Your task to perform on an android device: change your default location settings in chrome Image 0: 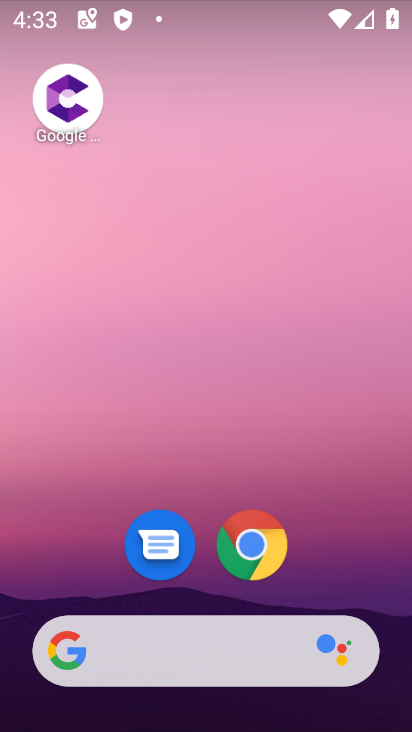
Step 0: drag from (331, 430) to (300, 0)
Your task to perform on an android device: change your default location settings in chrome Image 1: 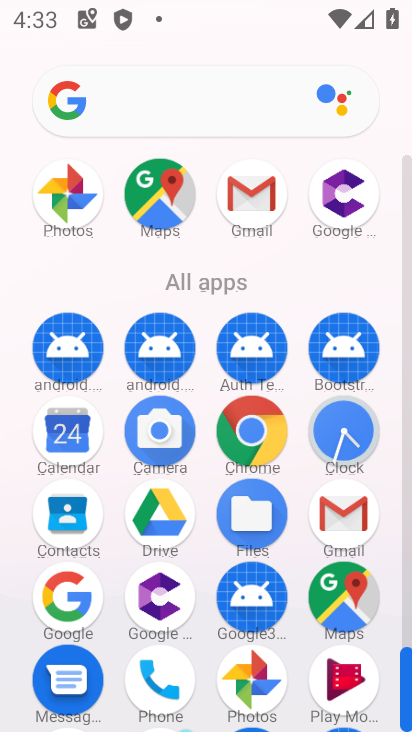
Step 1: drag from (14, 622) to (4, 227)
Your task to perform on an android device: change your default location settings in chrome Image 2: 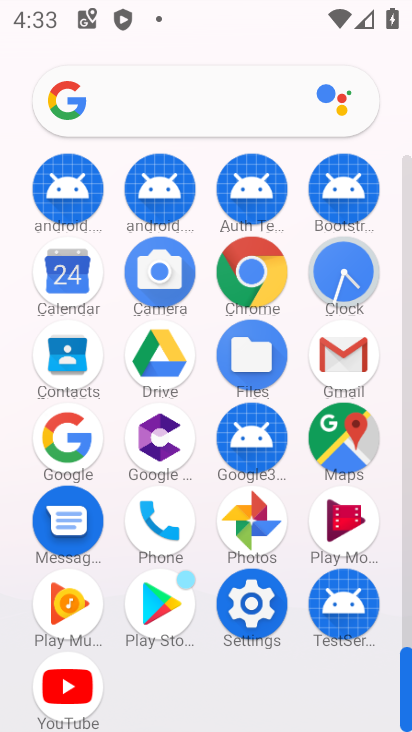
Step 2: click (255, 258)
Your task to perform on an android device: change your default location settings in chrome Image 3: 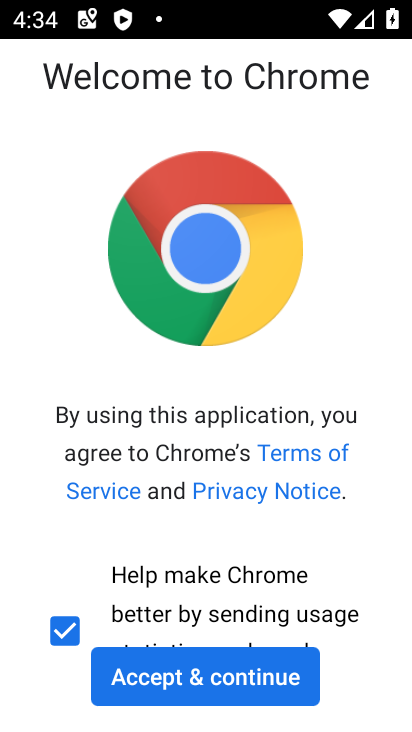
Step 3: click (259, 663)
Your task to perform on an android device: change your default location settings in chrome Image 4: 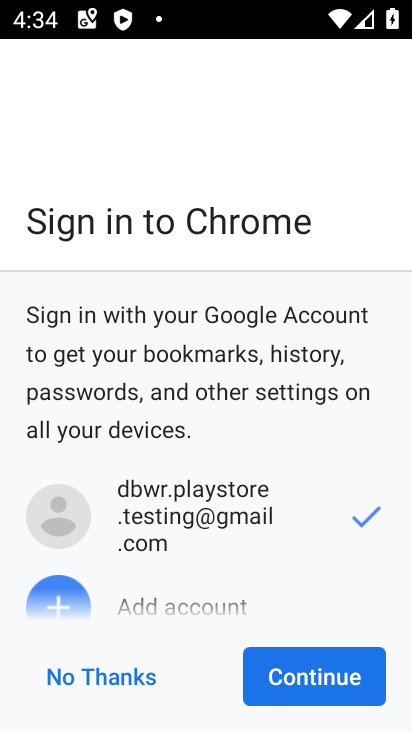
Step 4: click (315, 708)
Your task to perform on an android device: change your default location settings in chrome Image 5: 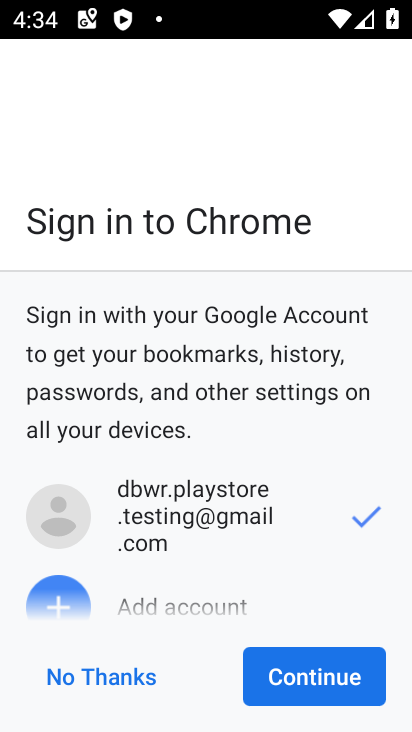
Step 5: click (310, 672)
Your task to perform on an android device: change your default location settings in chrome Image 6: 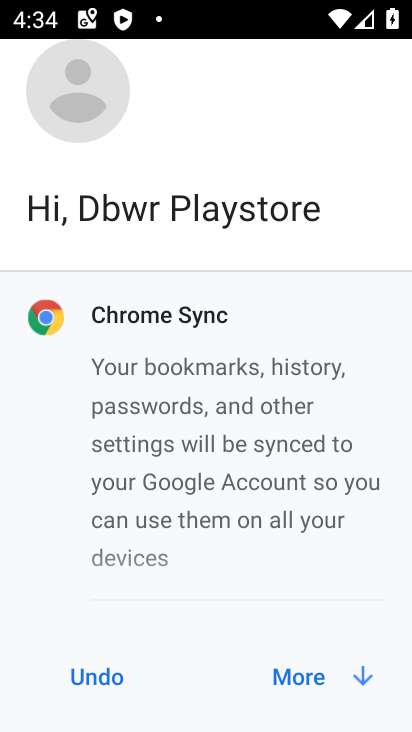
Step 6: click (310, 672)
Your task to perform on an android device: change your default location settings in chrome Image 7: 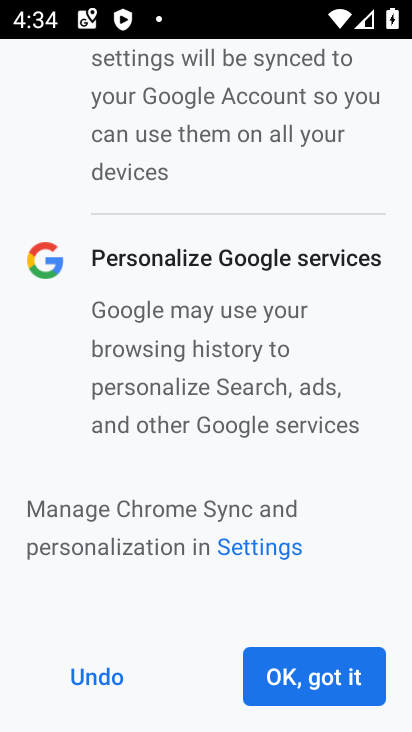
Step 7: click (310, 672)
Your task to perform on an android device: change your default location settings in chrome Image 8: 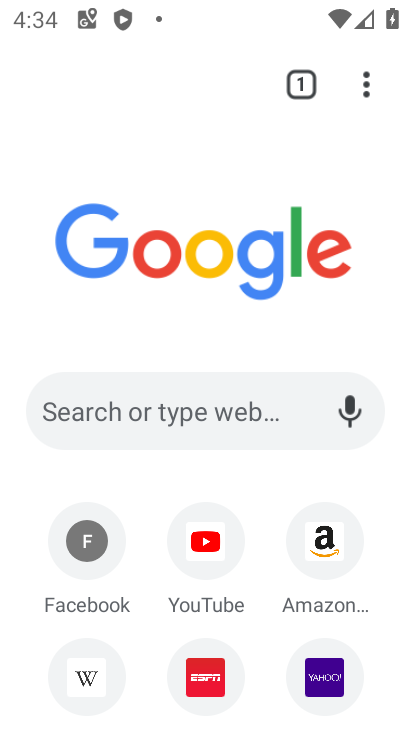
Step 8: drag from (369, 99) to (106, 582)
Your task to perform on an android device: change your default location settings in chrome Image 9: 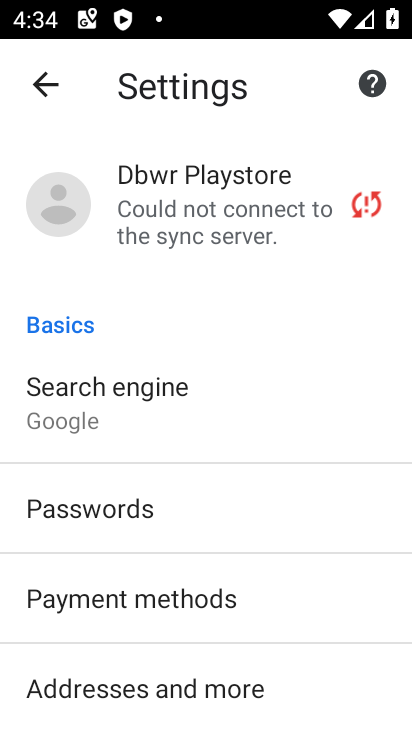
Step 9: drag from (200, 653) to (232, 251)
Your task to perform on an android device: change your default location settings in chrome Image 10: 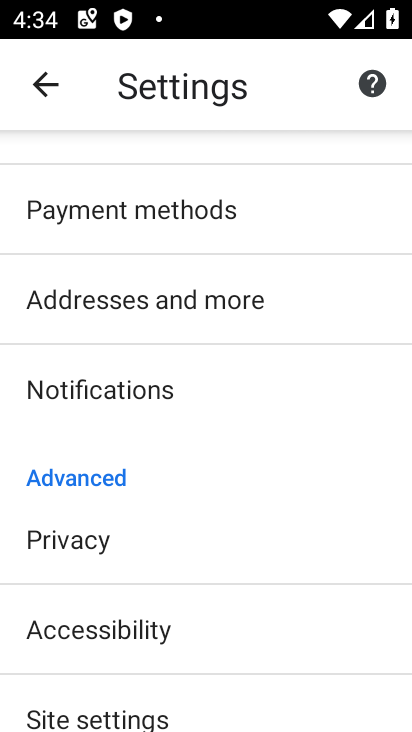
Step 10: drag from (194, 643) to (243, 193)
Your task to perform on an android device: change your default location settings in chrome Image 11: 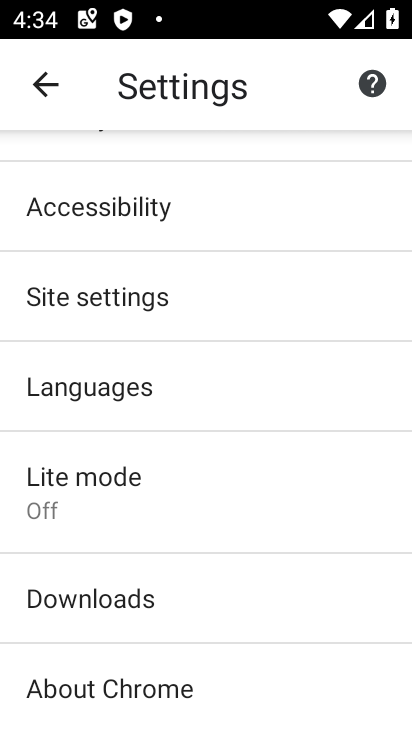
Step 11: drag from (204, 533) to (231, 134)
Your task to perform on an android device: change your default location settings in chrome Image 12: 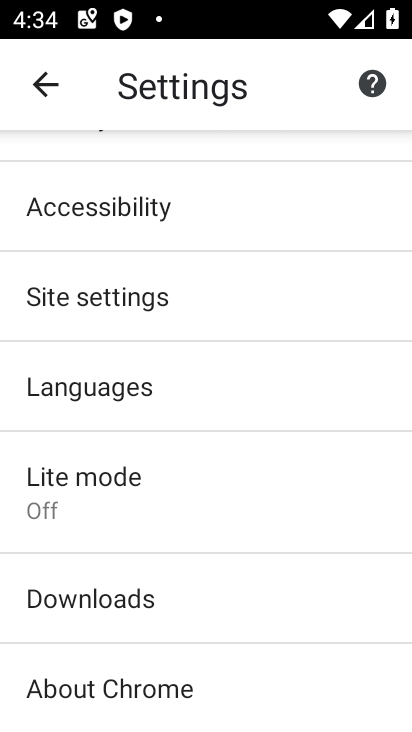
Step 12: click (197, 297)
Your task to perform on an android device: change your default location settings in chrome Image 13: 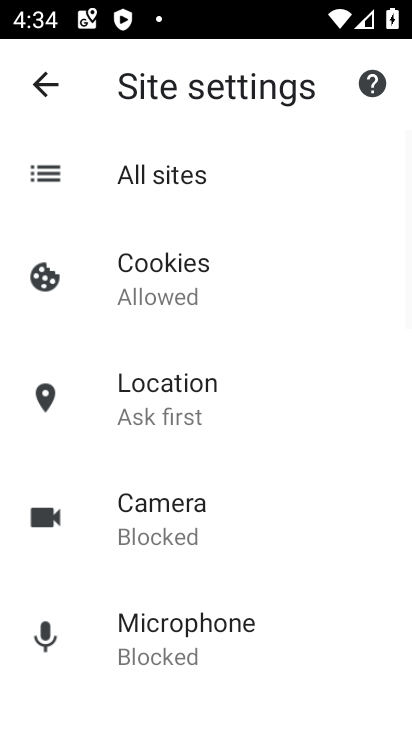
Step 13: drag from (227, 532) to (227, 462)
Your task to perform on an android device: change your default location settings in chrome Image 14: 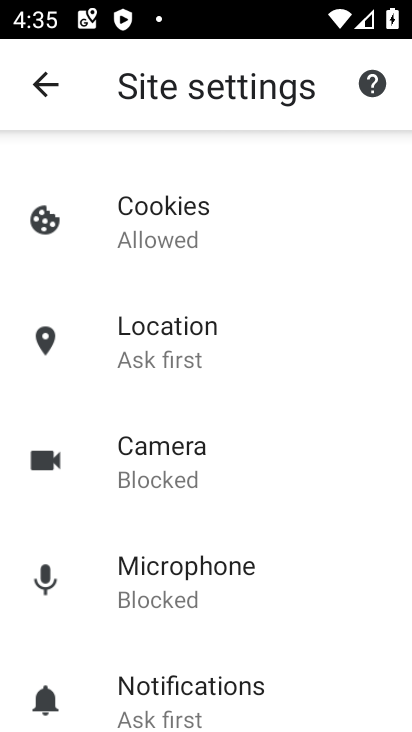
Step 14: click (177, 335)
Your task to perform on an android device: change your default location settings in chrome Image 15: 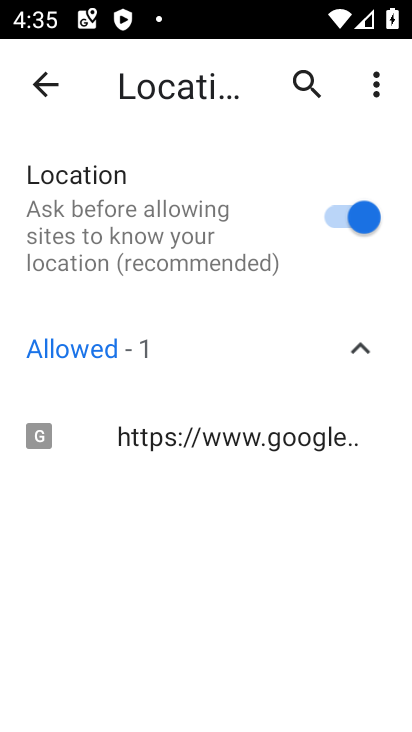
Step 15: click (348, 201)
Your task to perform on an android device: change your default location settings in chrome Image 16: 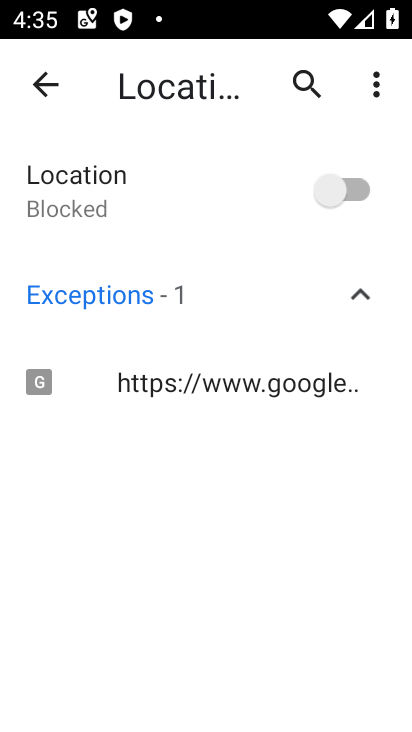
Step 16: task complete